Your task to perform on an android device: toggle location history Image 0: 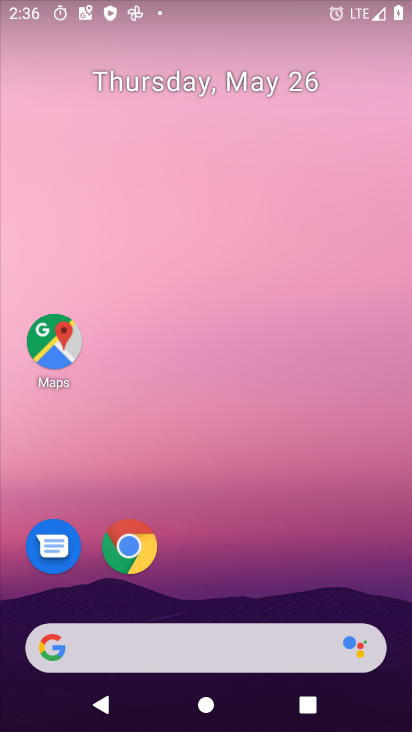
Step 0: drag from (206, 557) to (274, 136)
Your task to perform on an android device: toggle location history Image 1: 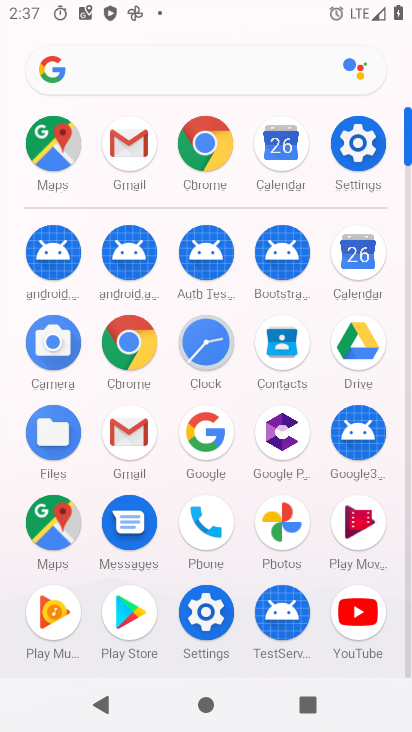
Step 1: click (355, 138)
Your task to perform on an android device: toggle location history Image 2: 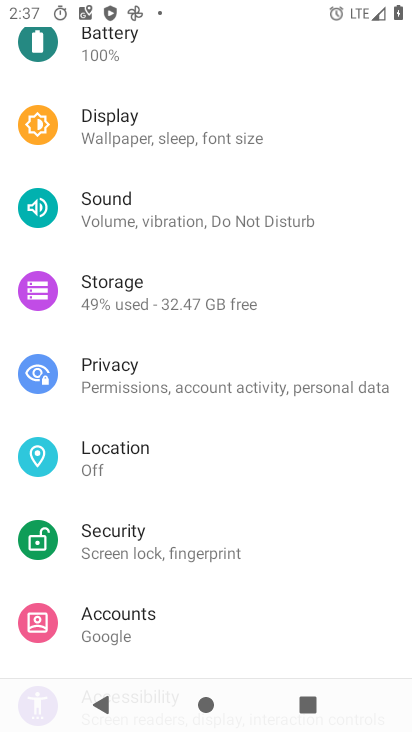
Step 2: click (138, 464)
Your task to perform on an android device: toggle location history Image 3: 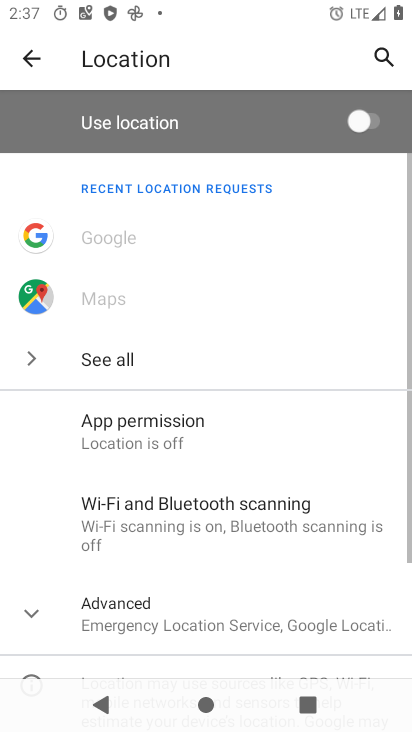
Step 3: click (145, 602)
Your task to perform on an android device: toggle location history Image 4: 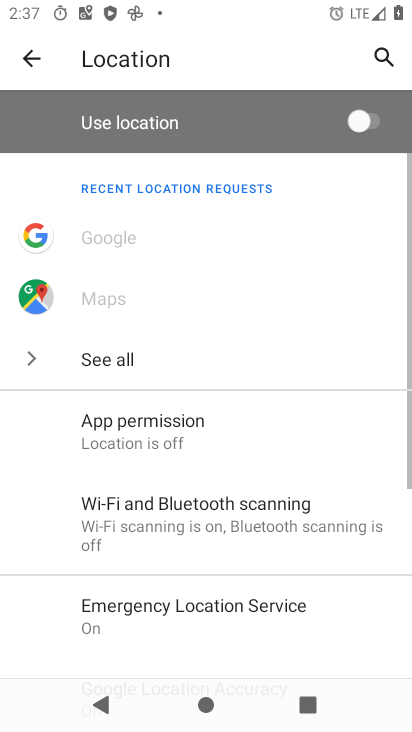
Step 4: drag from (217, 554) to (206, 189)
Your task to perform on an android device: toggle location history Image 5: 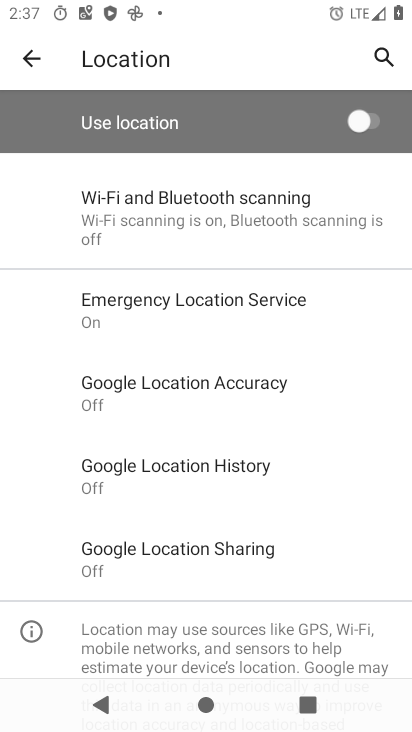
Step 5: click (145, 480)
Your task to perform on an android device: toggle location history Image 6: 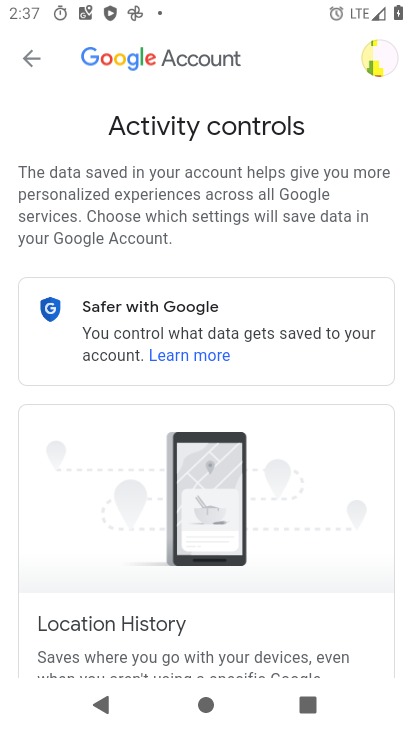
Step 6: drag from (282, 561) to (298, 92)
Your task to perform on an android device: toggle location history Image 7: 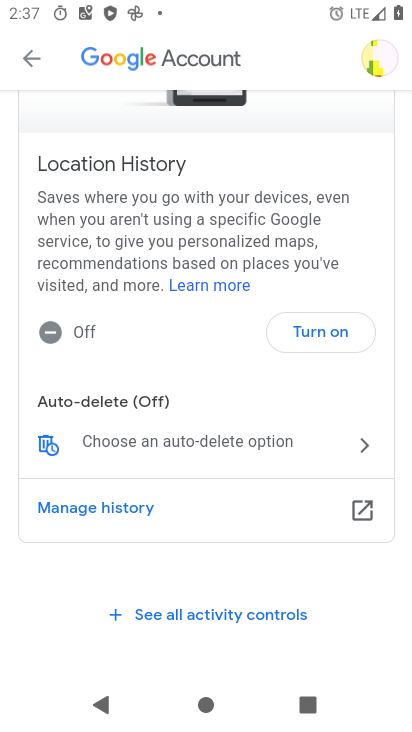
Step 7: click (318, 333)
Your task to perform on an android device: toggle location history Image 8: 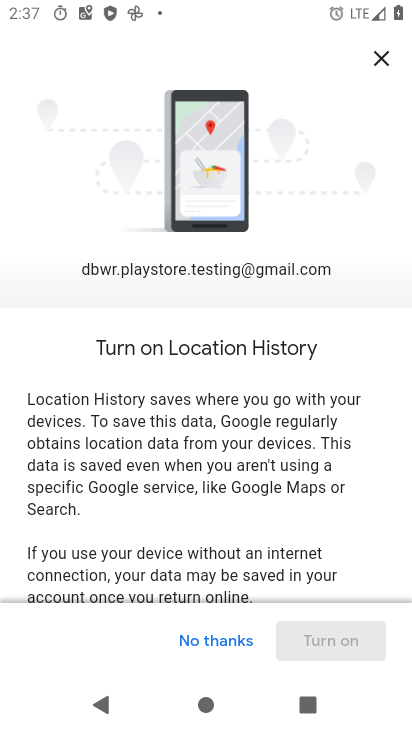
Step 8: drag from (307, 558) to (334, 116)
Your task to perform on an android device: toggle location history Image 9: 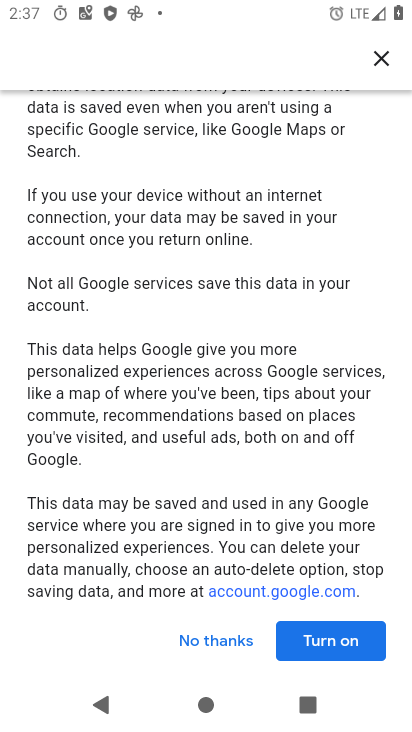
Step 9: click (328, 641)
Your task to perform on an android device: toggle location history Image 10: 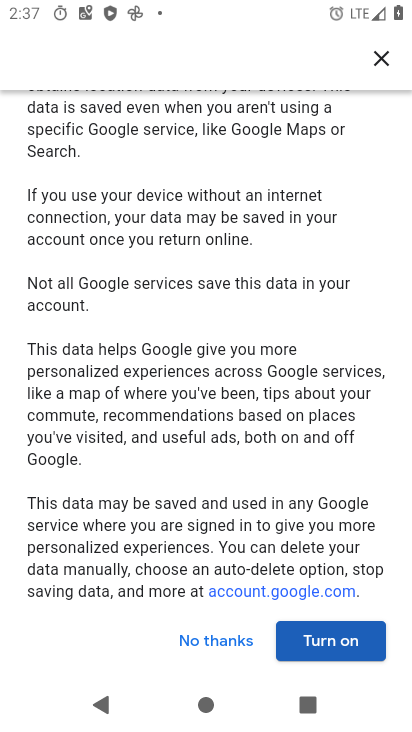
Step 10: click (324, 648)
Your task to perform on an android device: toggle location history Image 11: 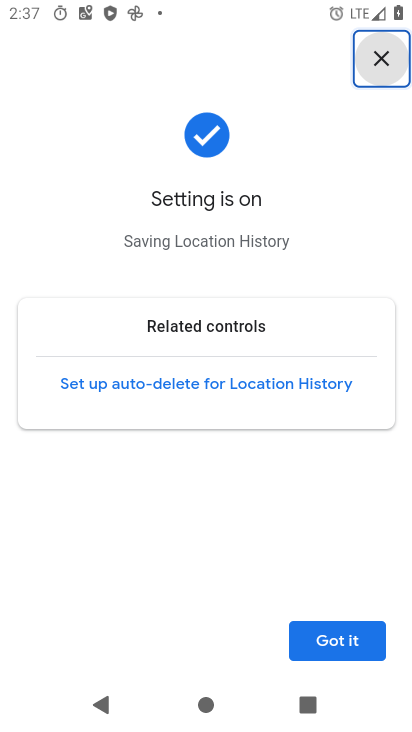
Step 11: click (334, 647)
Your task to perform on an android device: toggle location history Image 12: 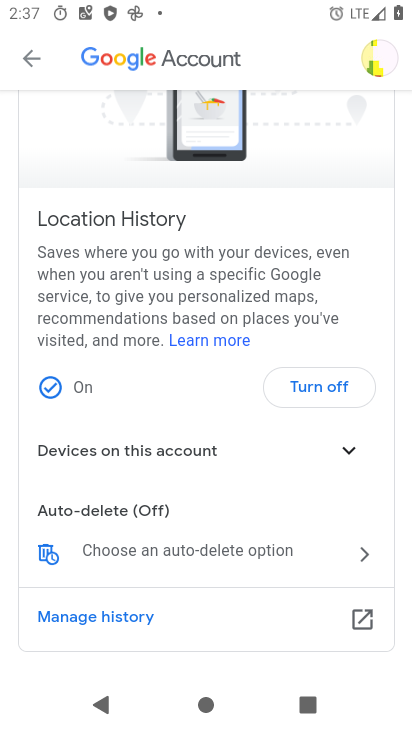
Step 12: task complete